Your task to perform on an android device: Open Amazon Image 0: 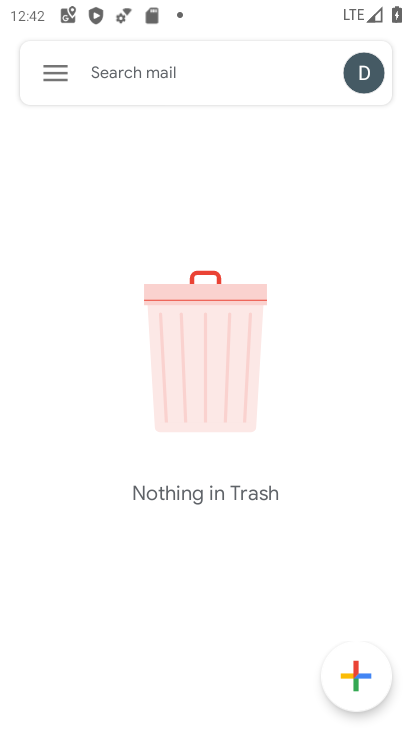
Step 0: press home button
Your task to perform on an android device: Open Amazon Image 1: 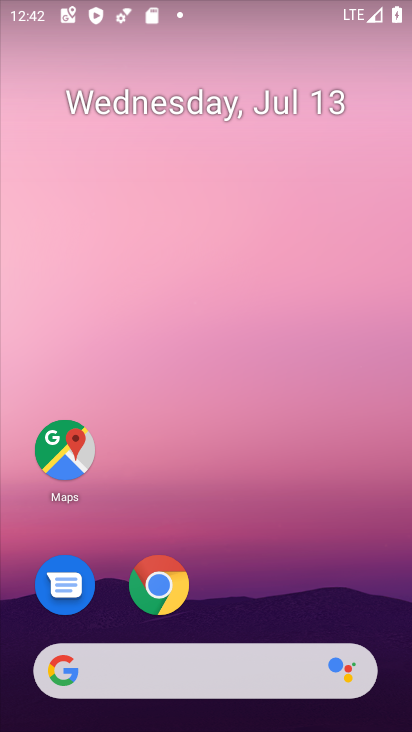
Step 1: drag from (222, 507) to (183, 15)
Your task to perform on an android device: Open Amazon Image 2: 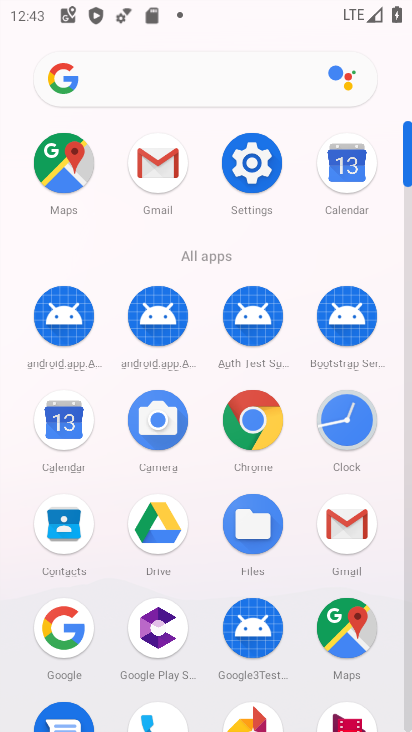
Step 2: click (251, 407)
Your task to perform on an android device: Open Amazon Image 3: 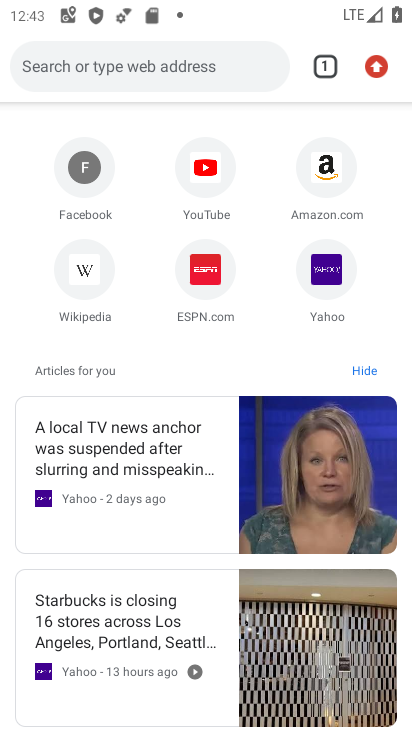
Step 3: click (329, 182)
Your task to perform on an android device: Open Amazon Image 4: 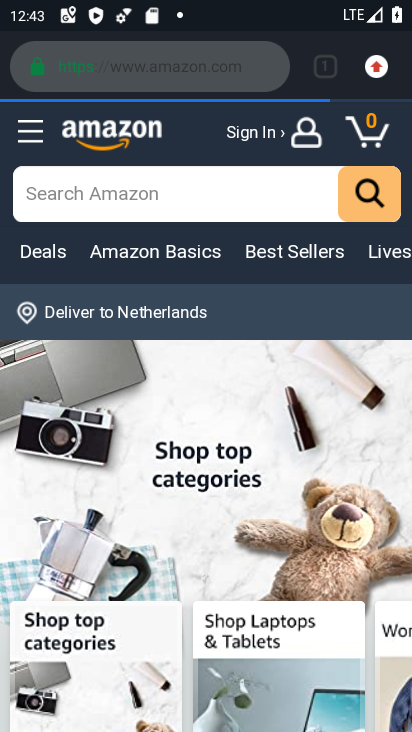
Step 4: task complete